Your task to perform on an android device: Go to Yahoo.com Image 0: 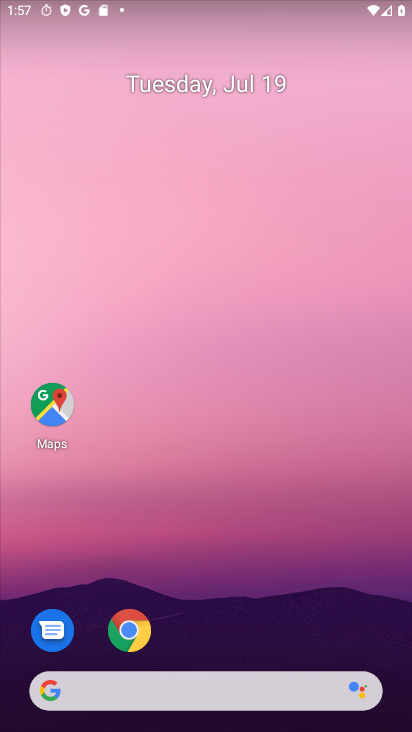
Step 0: click (140, 634)
Your task to perform on an android device: Go to Yahoo.com Image 1: 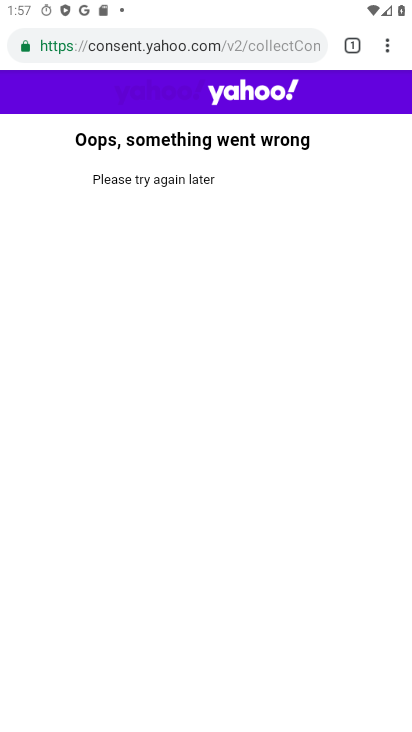
Step 1: task complete